Your task to perform on an android device: Open Youtube and go to "Your channel" Image 0: 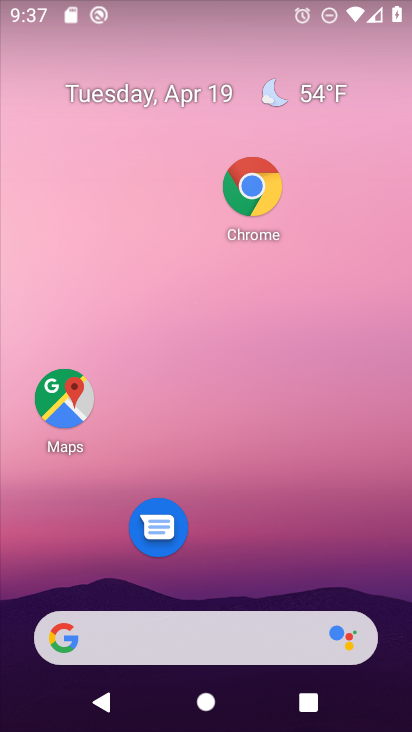
Step 0: drag from (283, 354) to (288, 247)
Your task to perform on an android device: Open Youtube and go to "Your channel" Image 1: 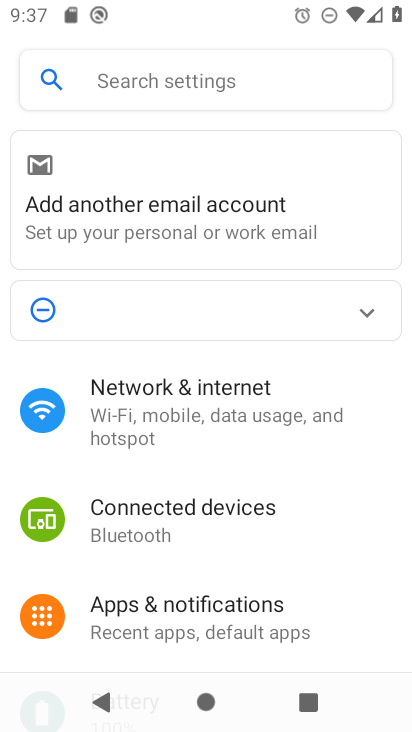
Step 1: press home button
Your task to perform on an android device: Open Youtube and go to "Your channel" Image 2: 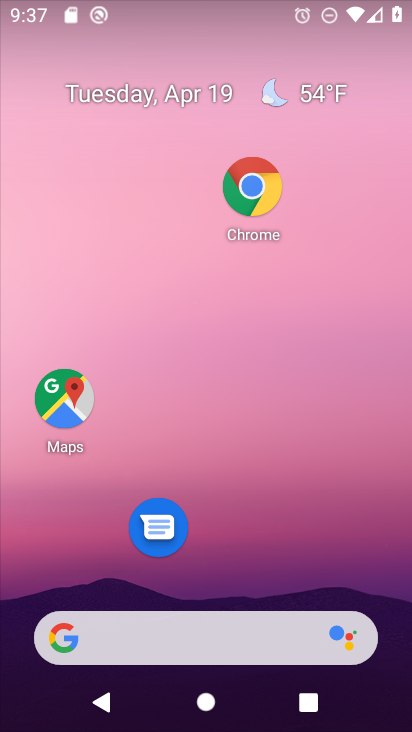
Step 2: drag from (208, 642) to (240, 215)
Your task to perform on an android device: Open Youtube and go to "Your channel" Image 3: 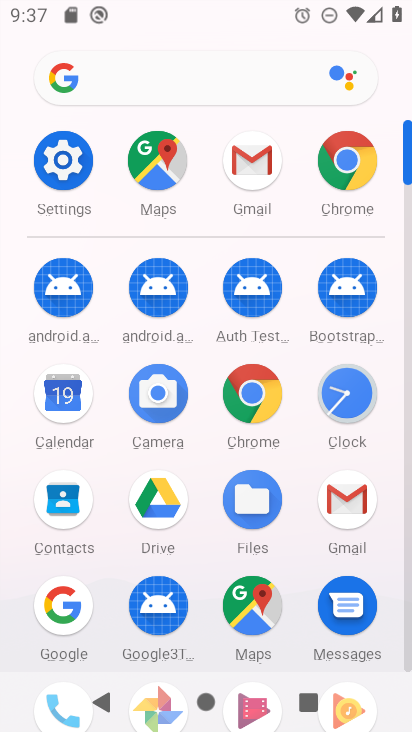
Step 3: drag from (277, 635) to (281, 196)
Your task to perform on an android device: Open Youtube and go to "Your channel" Image 4: 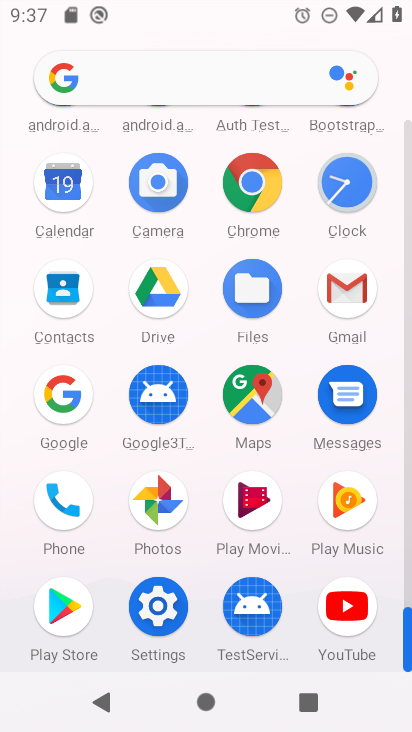
Step 4: click (340, 618)
Your task to perform on an android device: Open Youtube and go to "Your channel" Image 5: 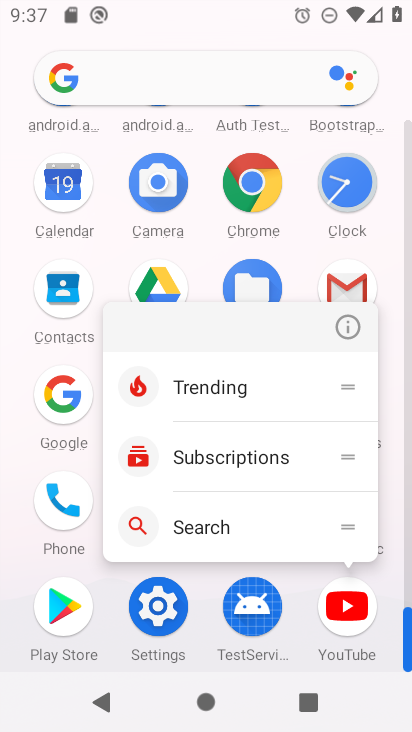
Step 5: click (343, 601)
Your task to perform on an android device: Open Youtube and go to "Your channel" Image 6: 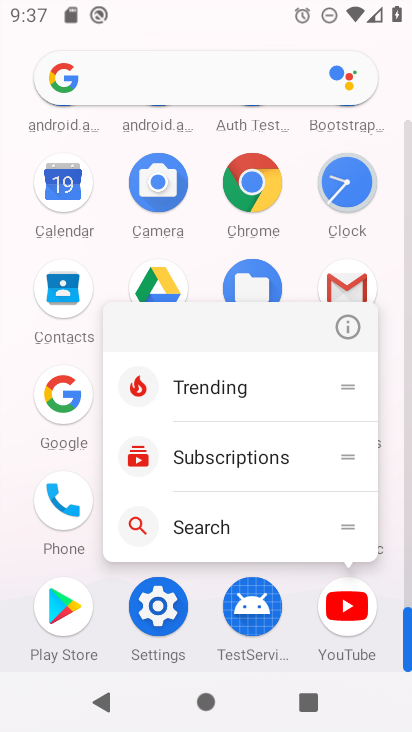
Step 6: click (343, 601)
Your task to perform on an android device: Open Youtube and go to "Your channel" Image 7: 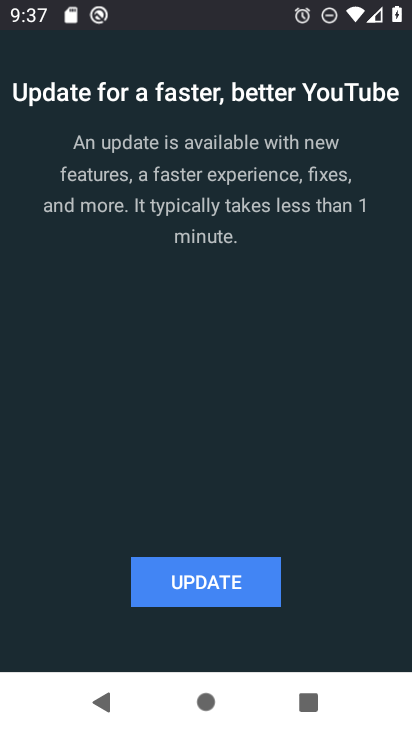
Step 7: task complete